Your task to perform on an android device: Turn on the flashlight Image 0: 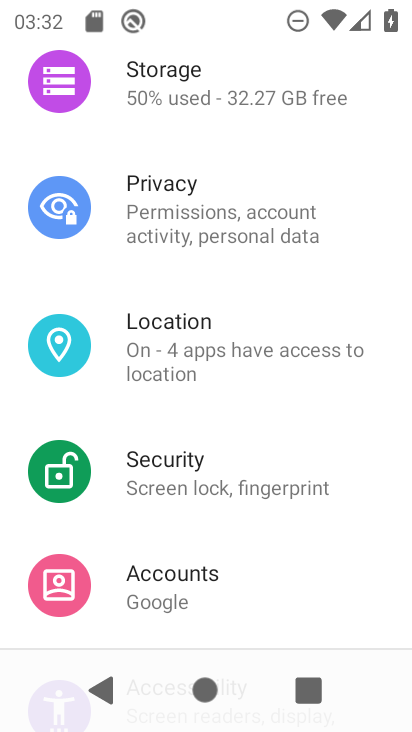
Step 0: press home button
Your task to perform on an android device: Turn on the flashlight Image 1: 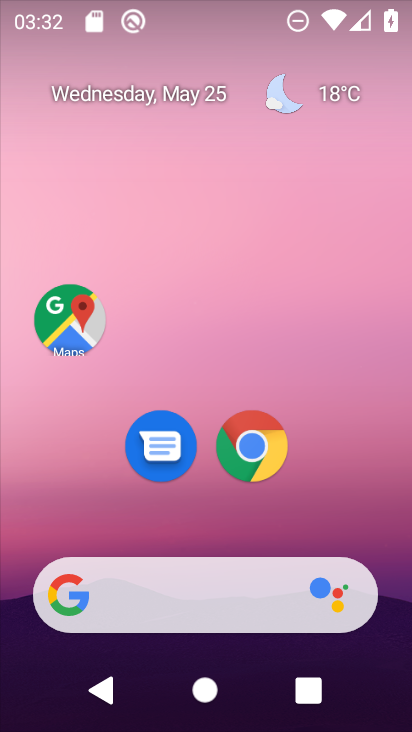
Step 1: task complete